Your task to perform on an android device: delete browsing data in the chrome app Image 0: 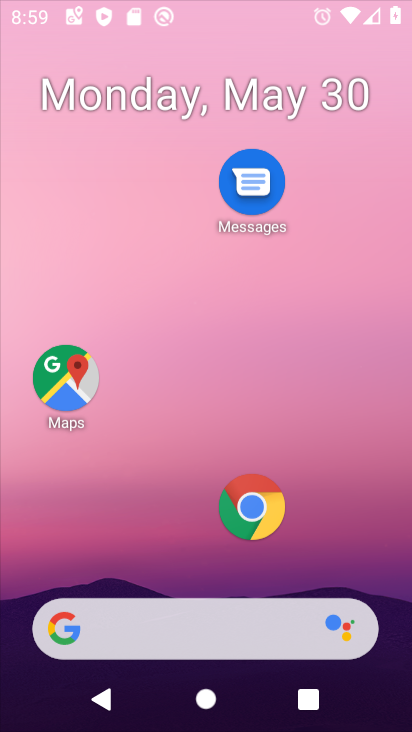
Step 0: click (182, 114)
Your task to perform on an android device: delete browsing data in the chrome app Image 1: 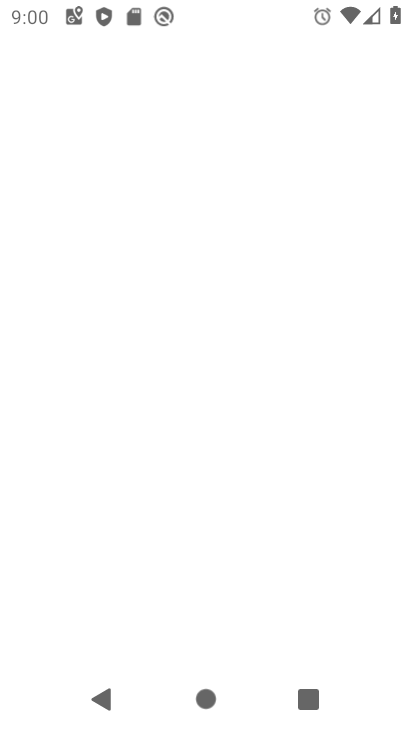
Step 1: press home button
Your task to perform on an android device: delete browsing data in the chrome app Image 2: 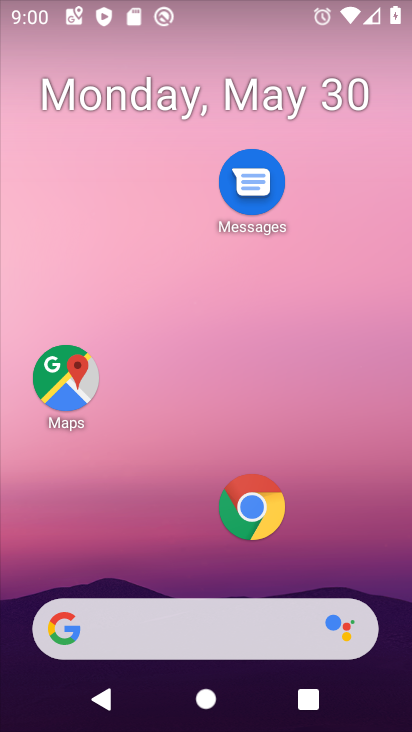
Step 2: click (267, 510)
Your task to perform on an android device: delete browsing data in the chrome app Image 3: 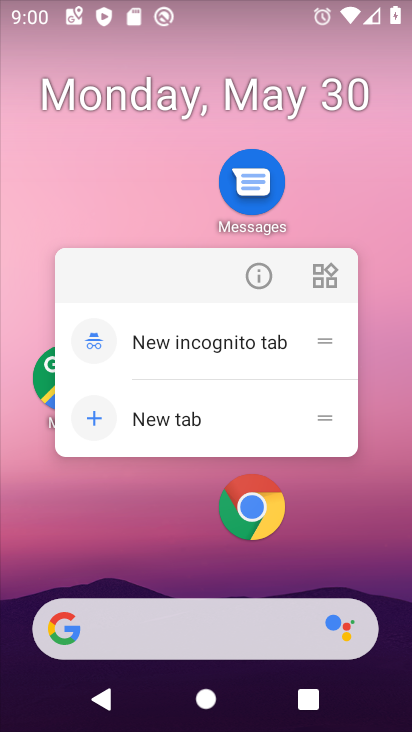
Step 3: click (255, 519)
Your task to perform on an android device: delete browsing data in the chrome app Image 4: 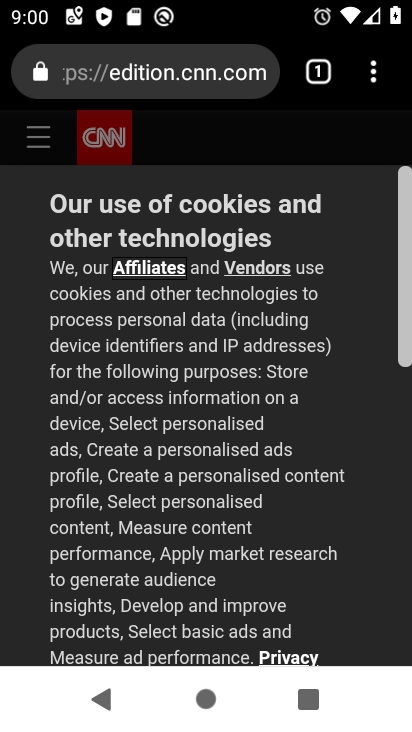
Step 4: click (375, 86)
Your task to perform on an android device: delete browsing data in the chrome app Image 5: 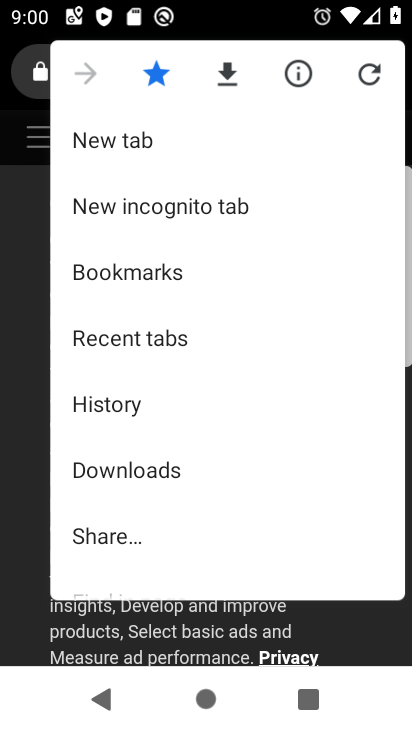
Step 5: click (114, 397)
Your task to perform on an android device: delete browsing data in the chrome app Image 6: 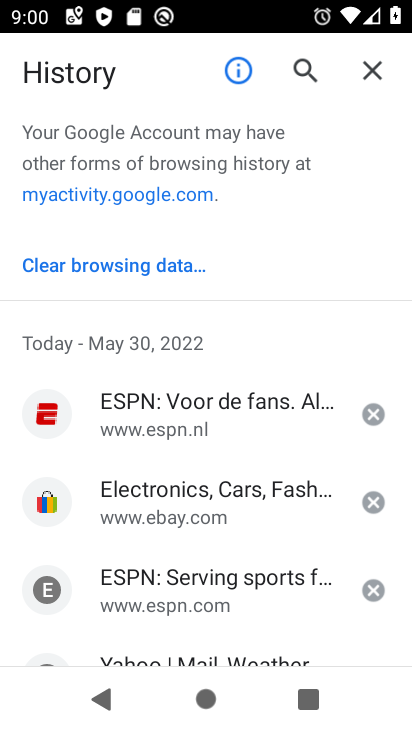
Step 6: click (155, 268)
Your task to perform on an android device: delete browsing data in the chrome app Image 7: 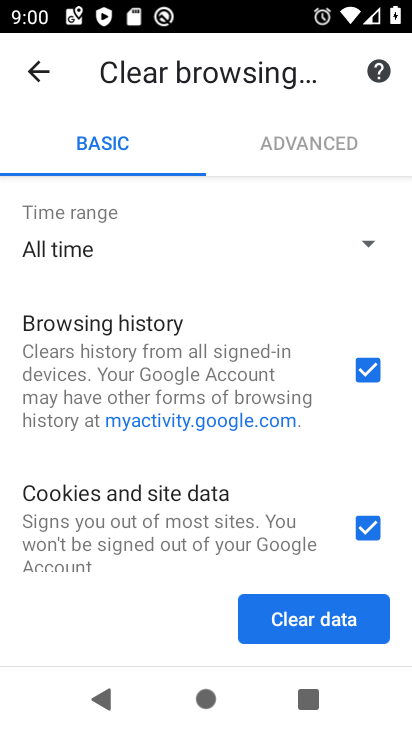
Step 7: drag from (225, 504) to (268, 247)
Your task to perform on an android device: delete browsing data in the chrome app Image 8: 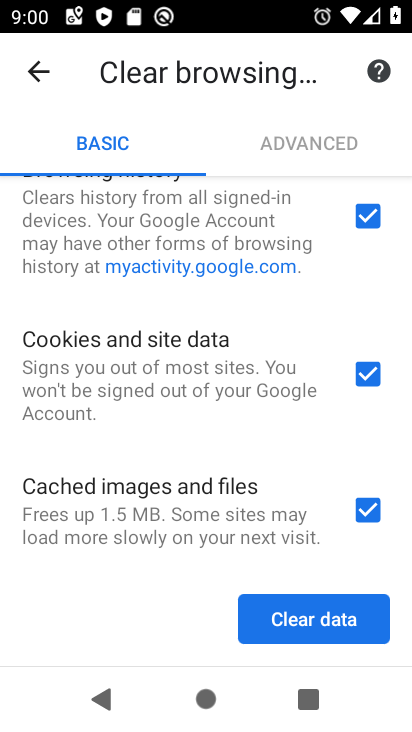
Step 8: click (267, 609)
Your task to perform on an android device: delete browsing data in the chrome app Image 9: 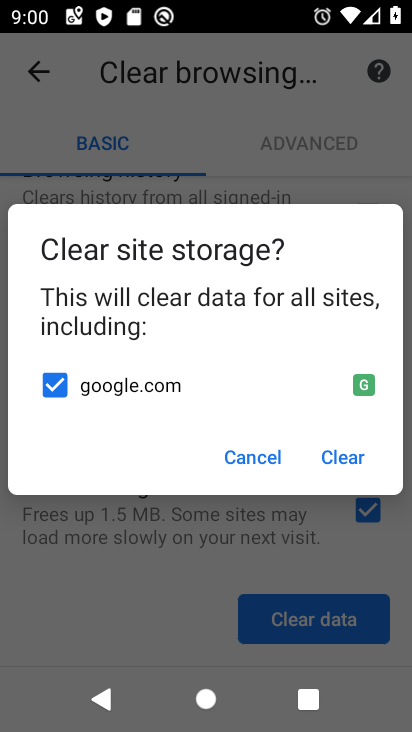
Step 9: click (355, 451)
Your task to perform on an android device: delete browsing data in the chrome app Image 10: 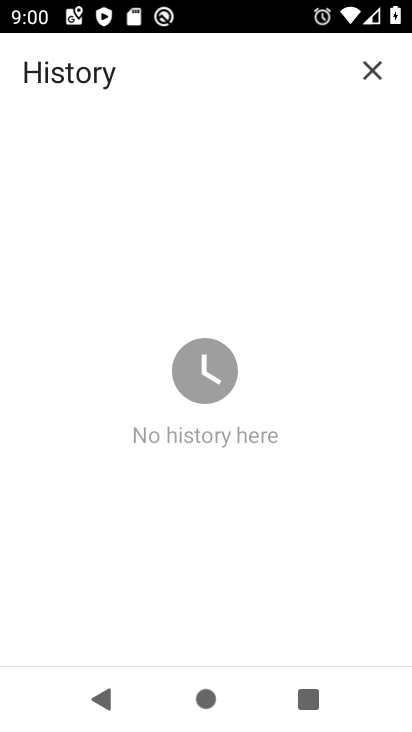
Step 10: task complete